Your task to perform on an android device: Go to Google maps Image 0: 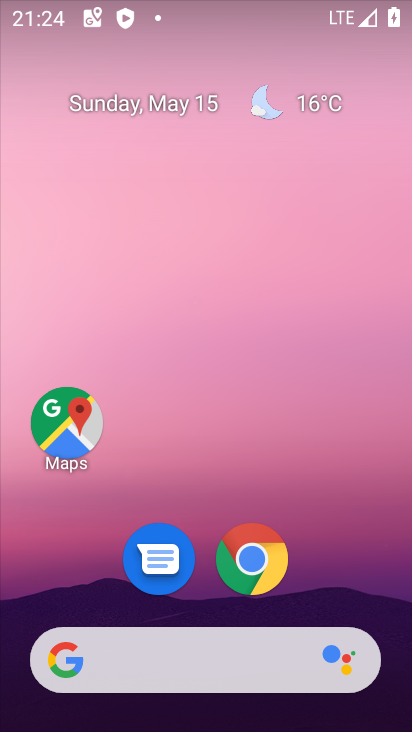
Step 0: click (66, 424)
Your task to perform on an android device: Go to Google maps Image 1: 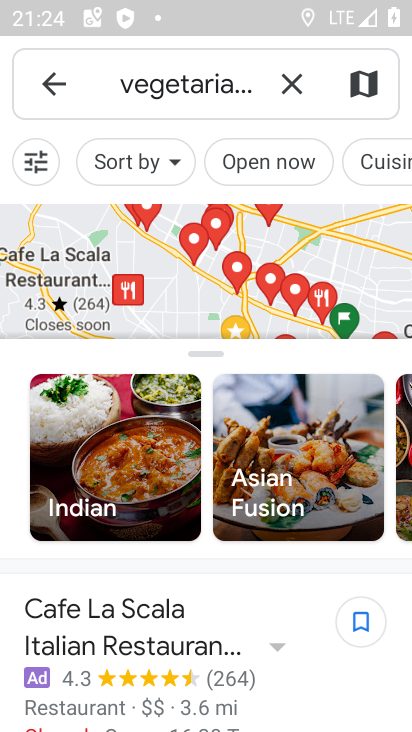
Step 1: task complete